Your task to perform on an android device: toggle notifications settings in the gmail app Image 0: 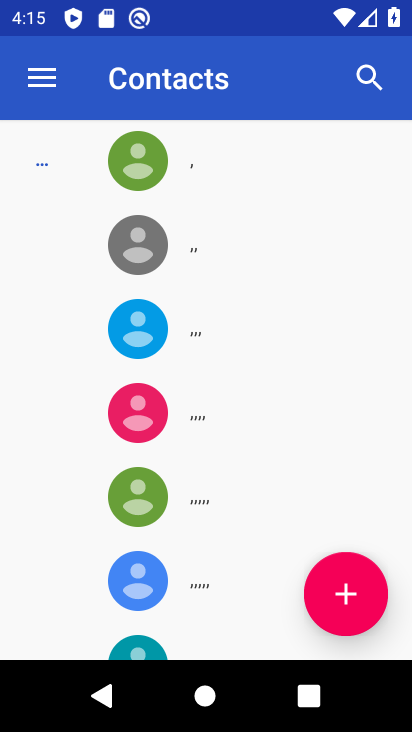
Step 0: press back button
Your task to perform on an android device: toggle notifications settings in the gmail app Image 1: 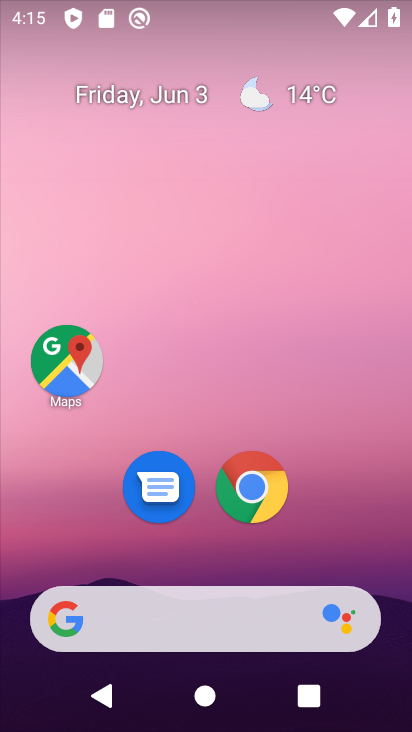
Step 1: drag from (237, 551) to (257, 0)
Your task to perform on an android device: toggle notifications settings in the gmail app Image 2: 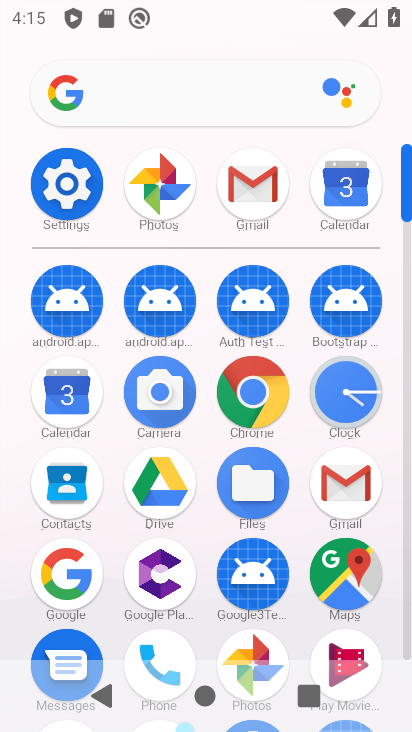
Step 2: click (272, 174)
Your task to perform on an android device: toggle notifications settings in the gmail app Image 3: 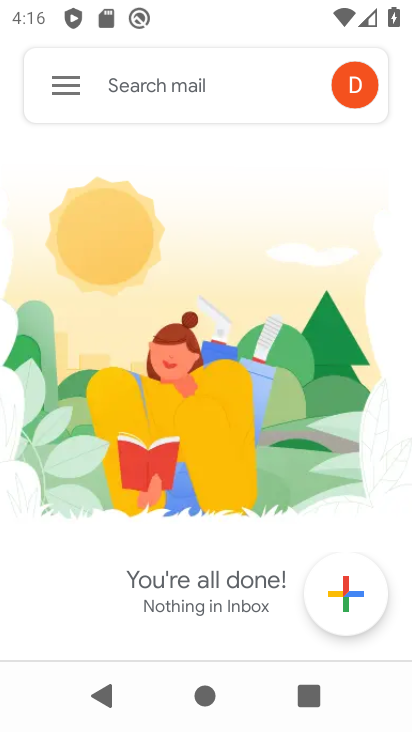
Step 3: press back button
Your task to perform on an android device: toggle notifications settings in the gmail app Image 4: 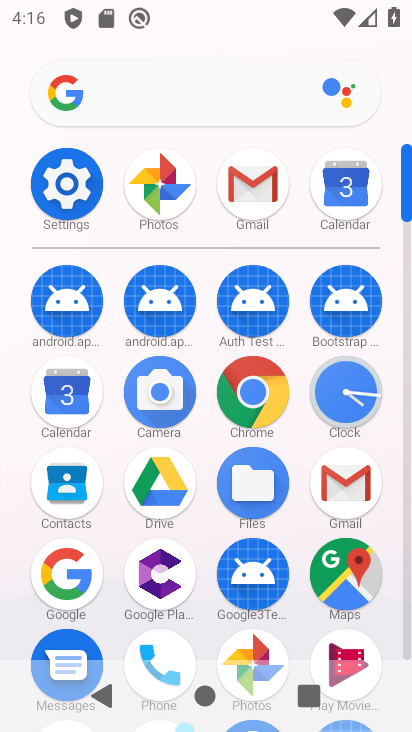
Step 4: click (244, 189)
Your task to perform on an android device: toggle notifications settings in the gmail app Image 5: 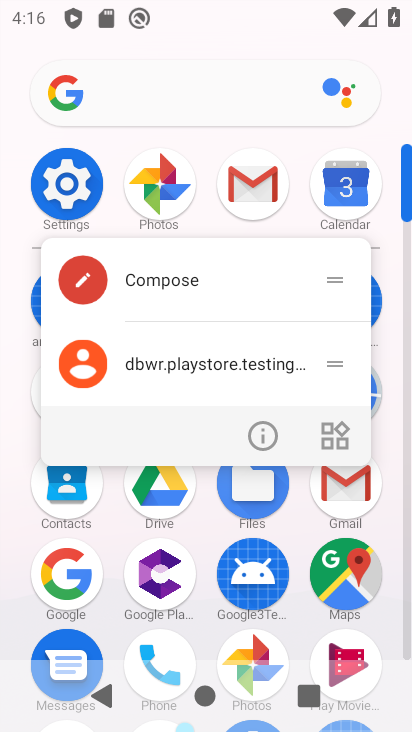
Step 5: click (263, 429)
Your task to perform on an android device: toggle notifications settings in the gmail app Image 6: 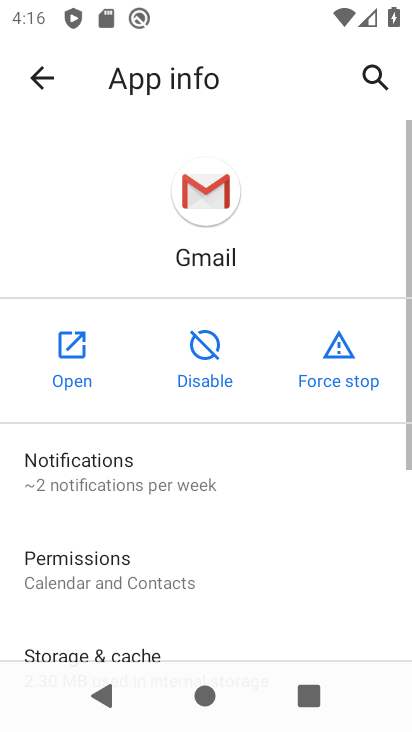
Step 6: click (139, 456)
Your task to perform on an android device: toggle notifications settings in the gmail app Image 7: 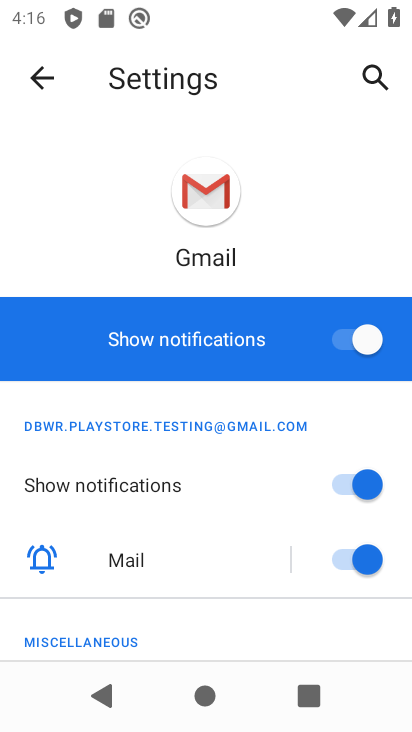
Step 7: click (375, 340)
Your task to perform on an android device: toggle notifications settings in the gmail app Image 8: 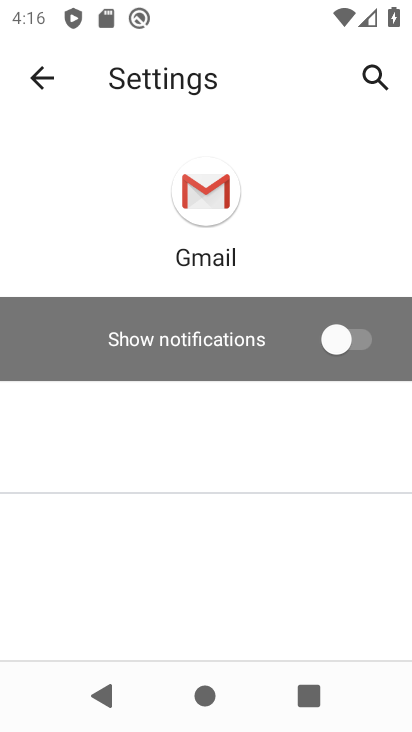
Step 8: task complete